Your task to perform on an android device: clear all cookies in the chrome app Image 0: 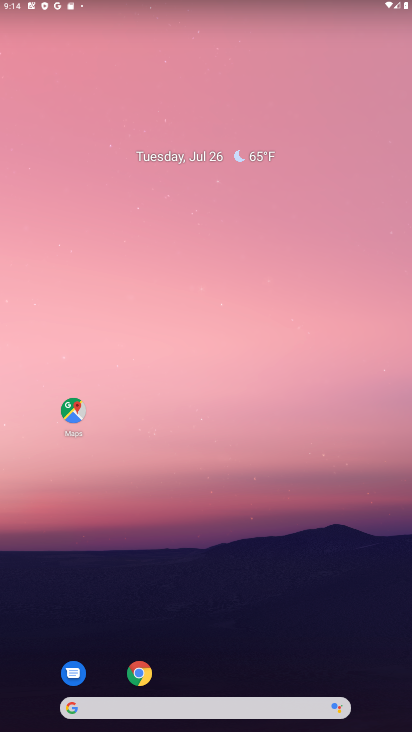
Step 0: click (139, 675)
Your task to perform on an android device: clear all cookies in the chrome app Image 1: 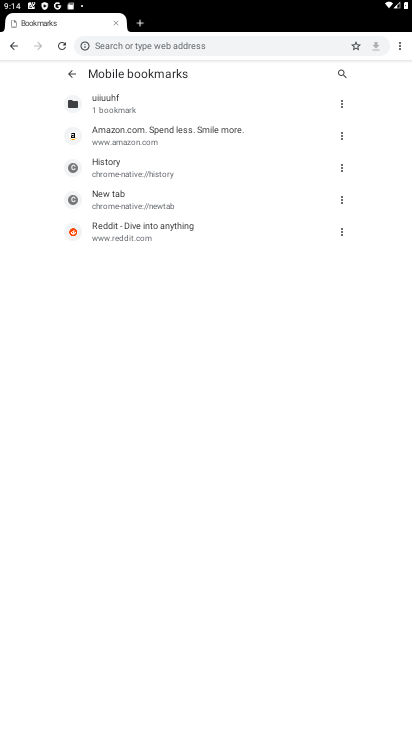
Step 1: click (401, 50)
Your task to perform on an android device: clear all cookies in the chrome app Image 2: 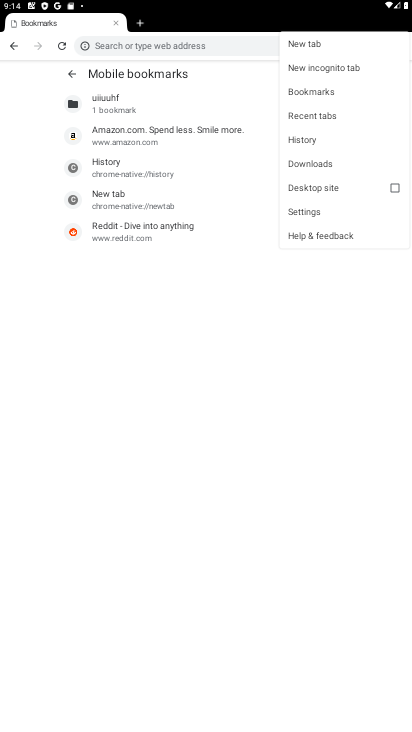
Step 2: click (296, 138)
Your task to perform on an android device: clear all cookies in the chrome app Image 3: 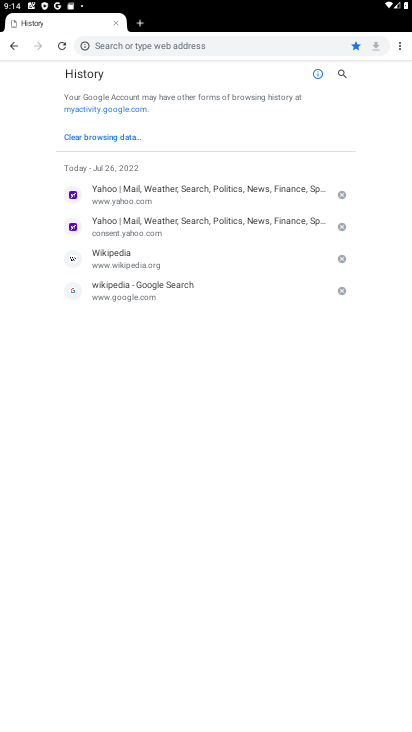
Step 3: click (108, 136)
Your task to perform on an android device: clear all cookies in the chrome app Image 4: 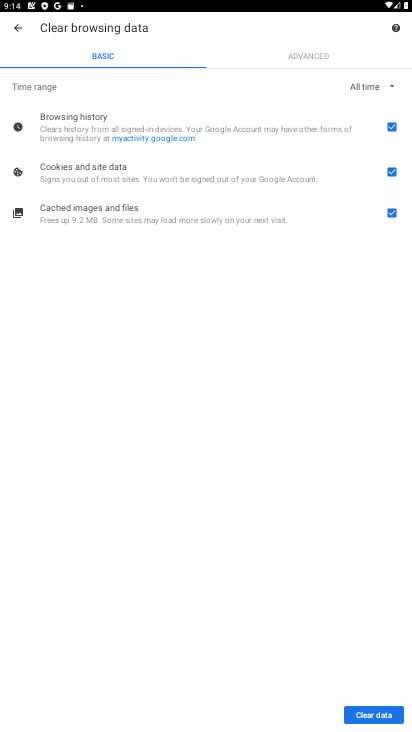
Step 4: click (390, 126)
Your task to perform on an android device: clear all cookies in the chrome app Image 5: 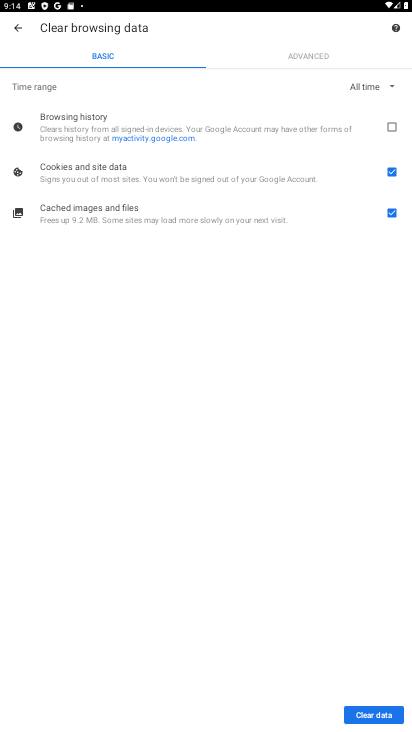
Step 5: click (395, 212)
Your task to perform on an android device: clear all cookies in the chrome app Image 6: 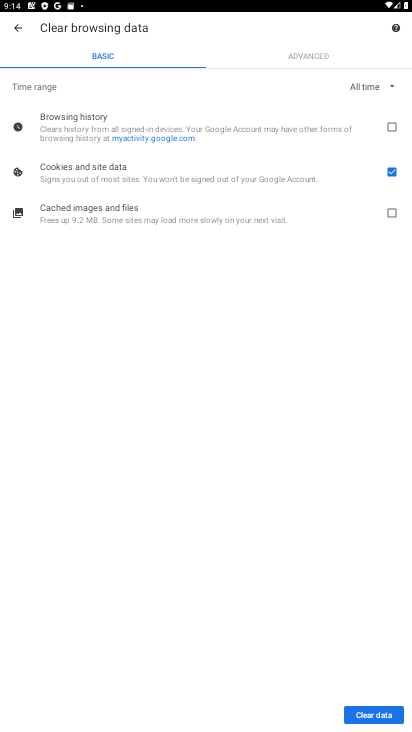
Step 6: click (372, 712)
Your task to perform on an android device: clear all cookies in the chrome app Image 7: 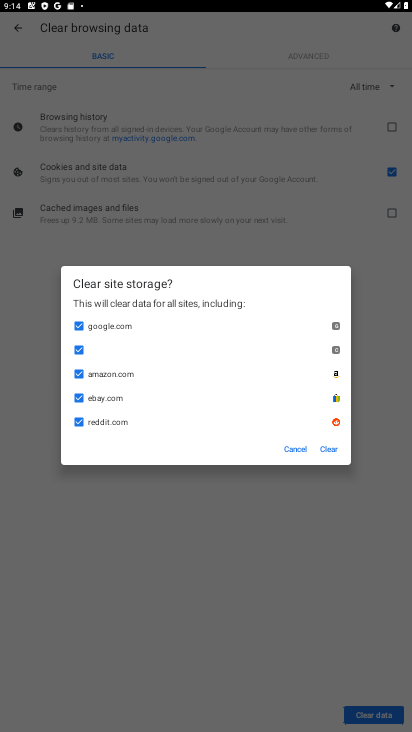
Step 7: click (324, 446)
Your task to perform on an android device: clear all cookies in the chrome app Image 8: 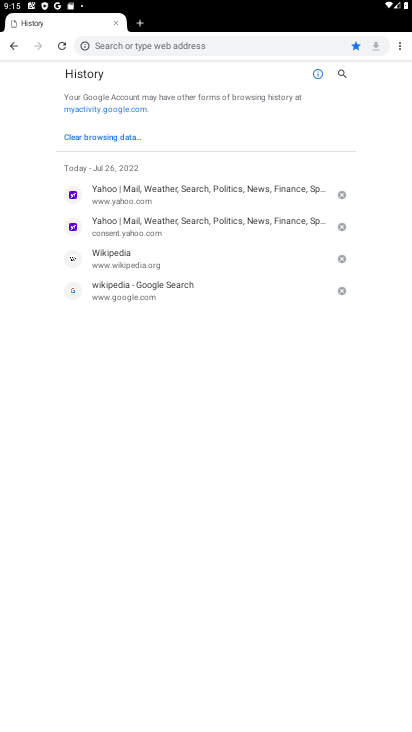
Step 8: task complete